Your task to perform on an android device: Search for a new foundation (skincare) product Image 0: 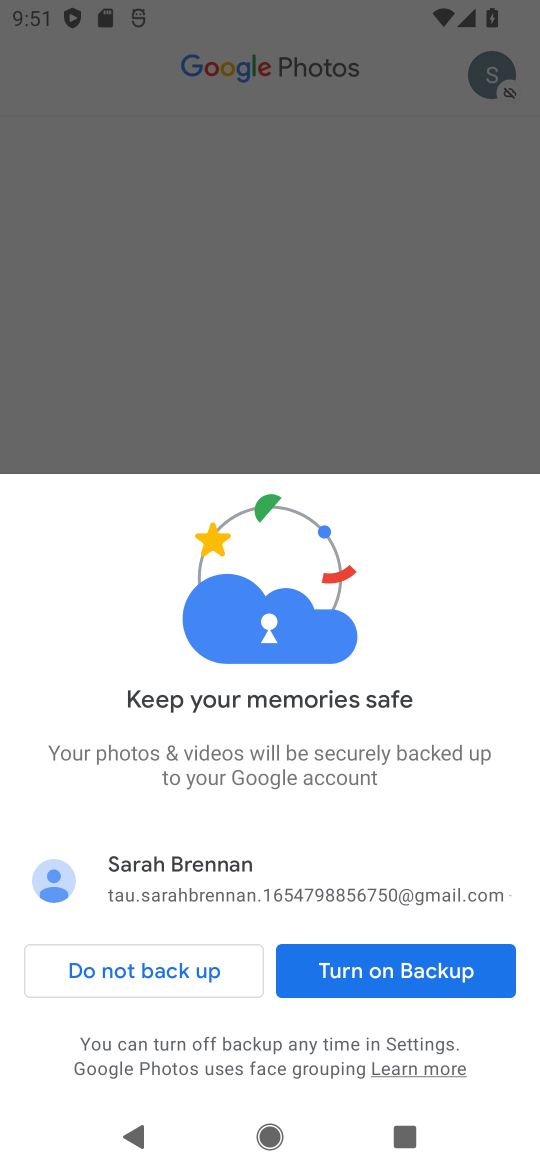
Step 0: press home button
Your task to perform on an android device: Search for a new foundation (skincare) product Image 1: 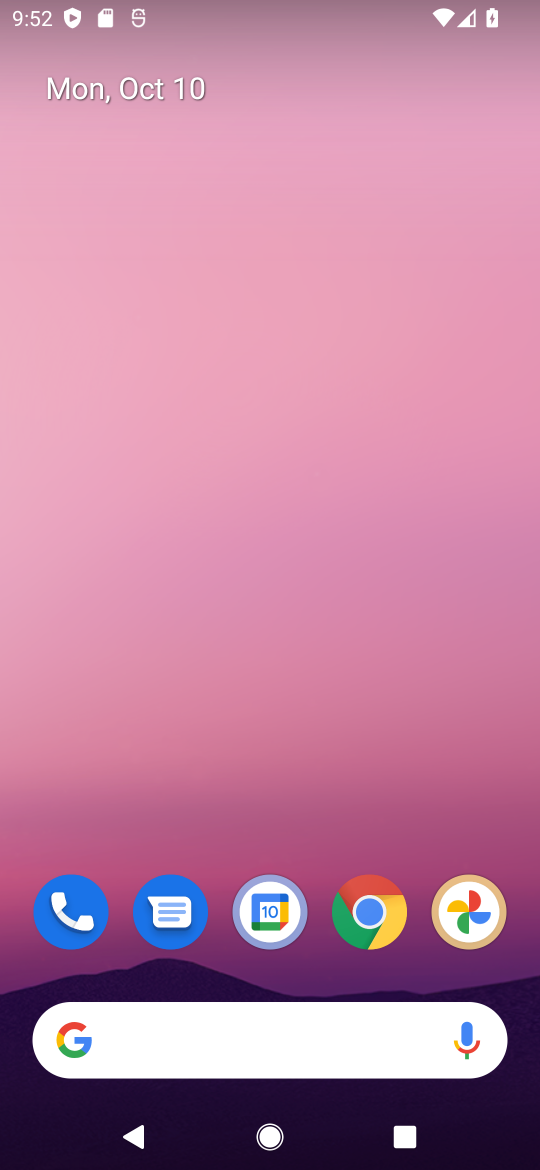
Step 1: click (60, 1042)
Your task to perform on an android device: Search for a new foundation (skincare) product Image 2: 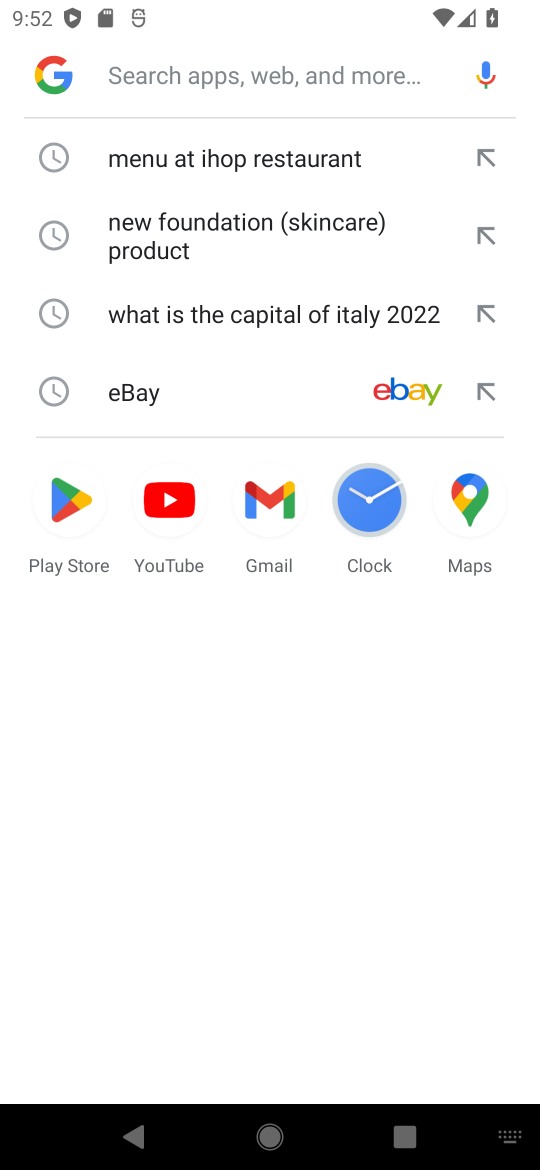
Step 2: type "NEW FOUNDATION PRODUCT"
Your task to perform on an android device: Search for a new foundation (skincare) product Image 3: 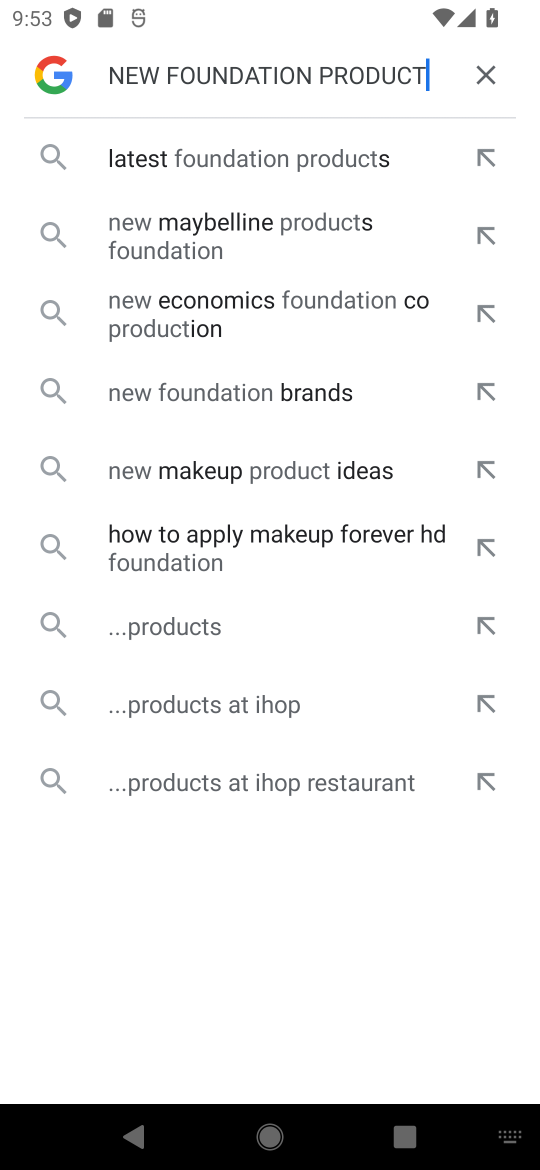
Step 3: click (201, 153)
Your task to perform on an android device: Search for a new foundation (skincare) product Image 4: 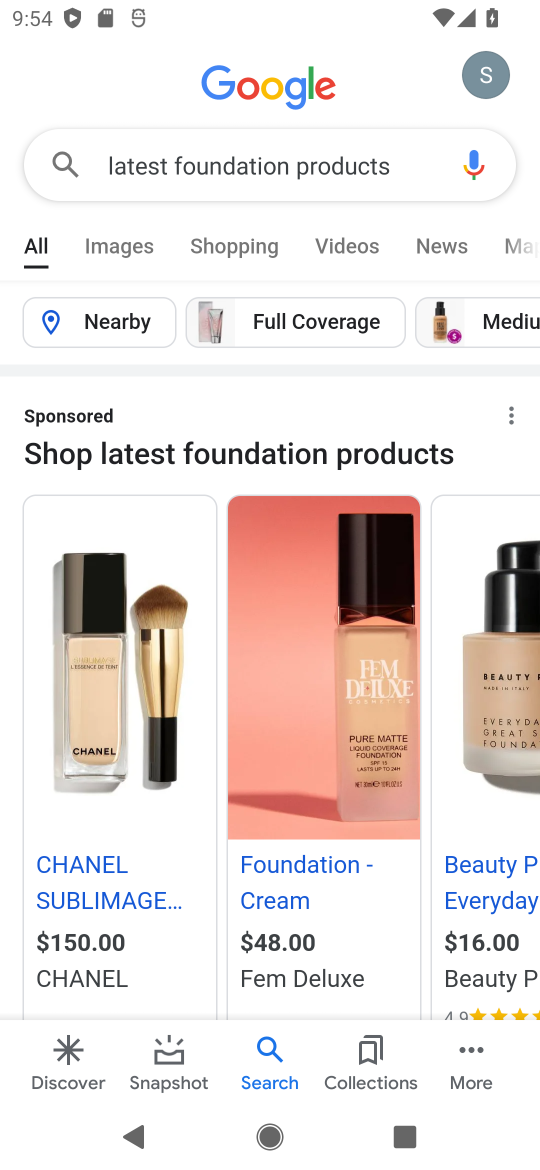
Step 4: task complete